Your task to perform on an android device: turn on the 12-hour format for clock Image 0: 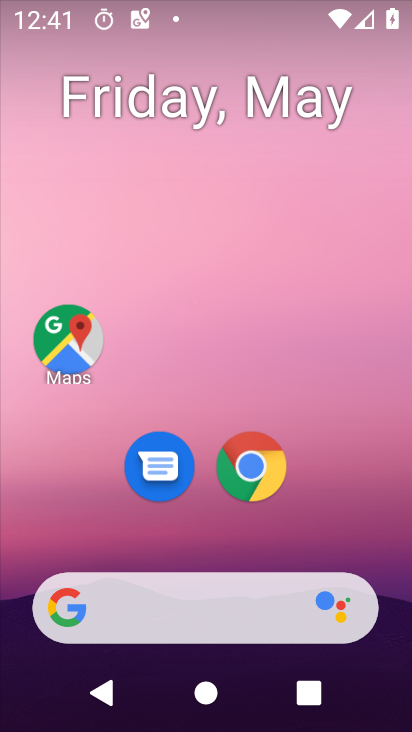
Step 0: drag from (396, 608) to (297, 99)
Your task to perform on an android device: turn on the 12-hour format for clock Image 1: 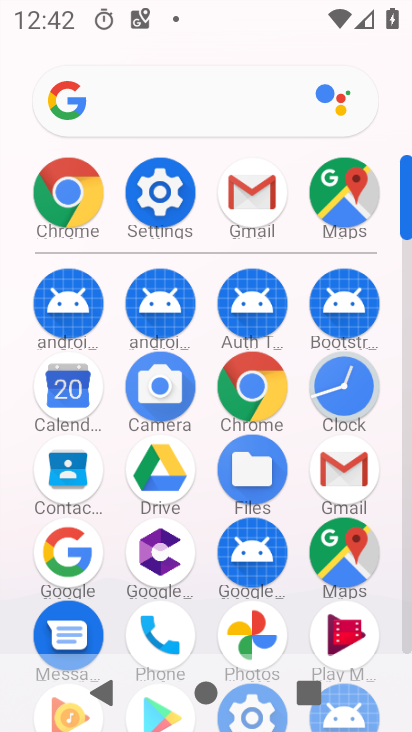
Step 1: click (350, 367)
Your task to perform on an android device: turn on the 12-hour format for clock Image 2: 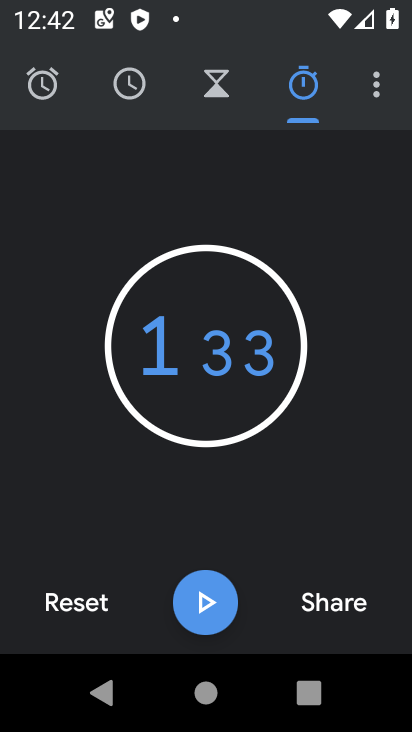
Step 2: click (377, 75)
Your task to perform on an android device: turn on the 12-hour format for clock Image 3: 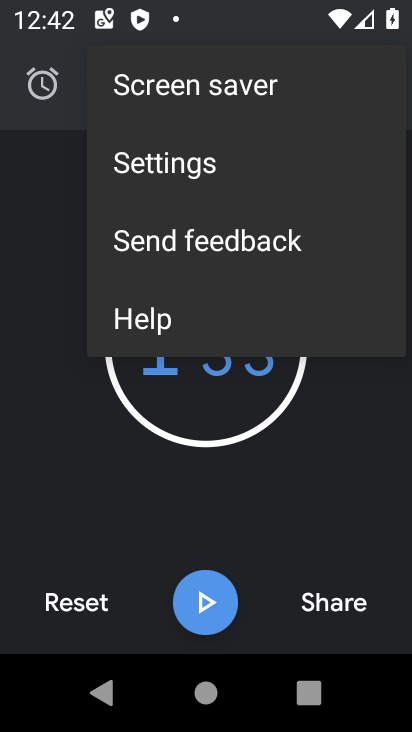
Step 3: click (239, 168)
Your task to perform on an android device: turn on the 12-hour format for clock Image 4: 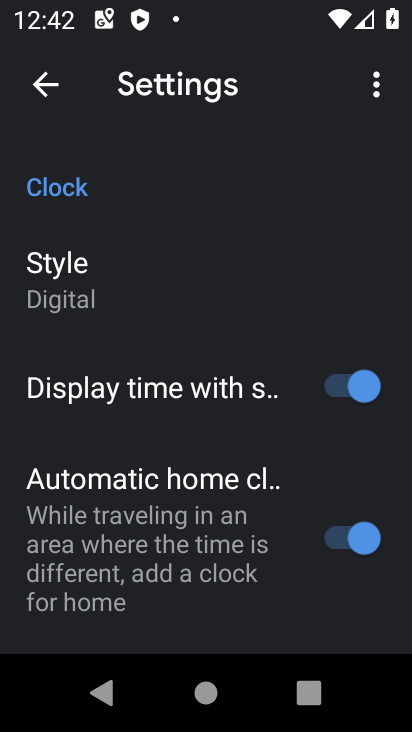
Step 4: drag from (191, 528) to (166, 206)
Your task to perform on an android device: turn on the 12-hour format for clock Image 5: 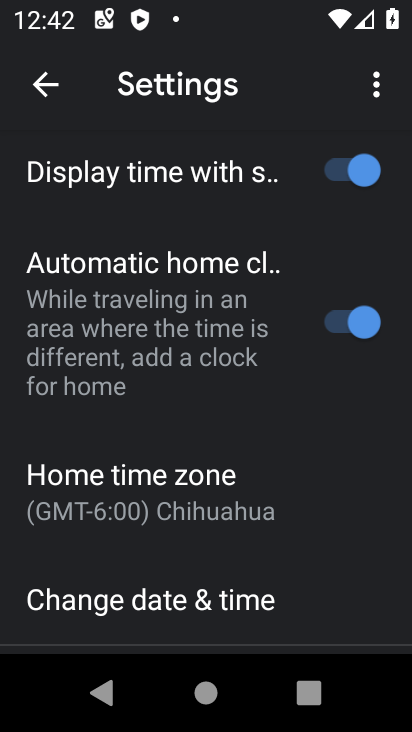
Step 5: click (208, 605)
Your task to perform on an android device: turn on the 12-hour format for clock Image 6: 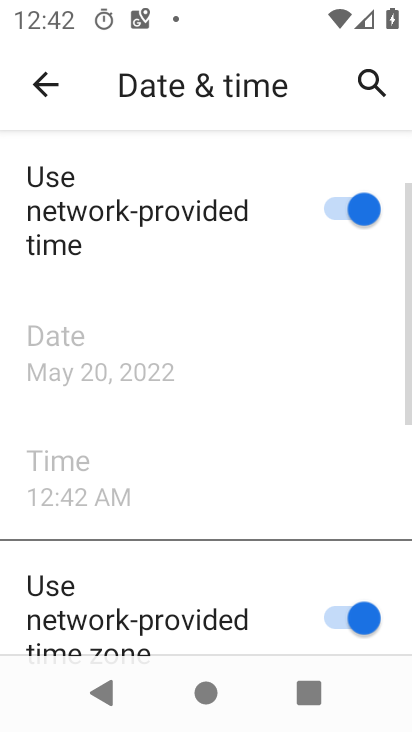
Step 6: task complete